Your task to perform on an android device: find which apps use the phone's location Image 0: 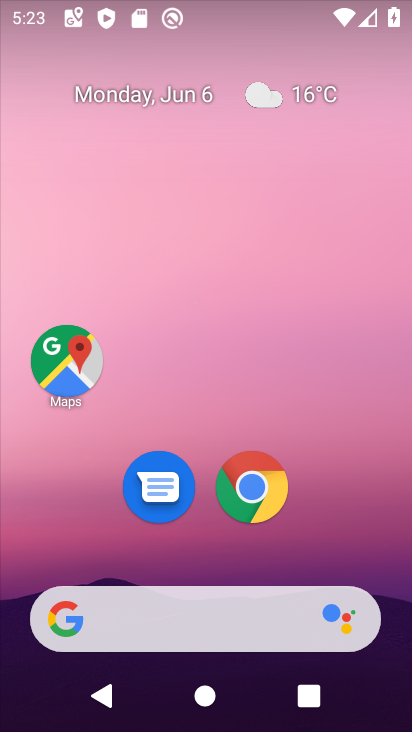
Step 0: drag from (331, 544) to (333, 28)
Your task to perform on an android device: find which apps use the phone's location Image 1: 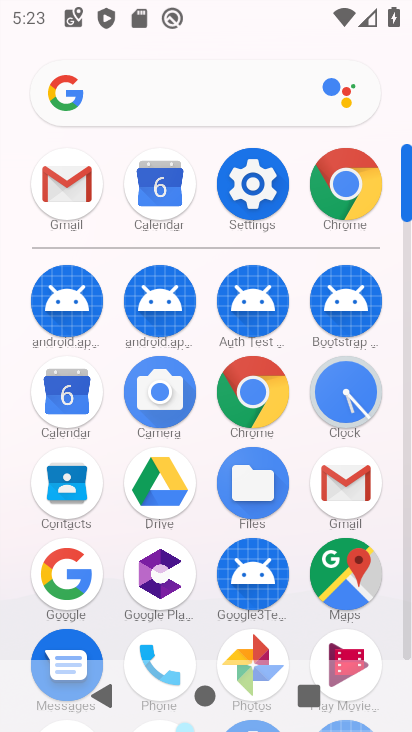
Step 1: click (261, 181)
Your task to perform on an android device: find which apps use the phone's location Image 2: 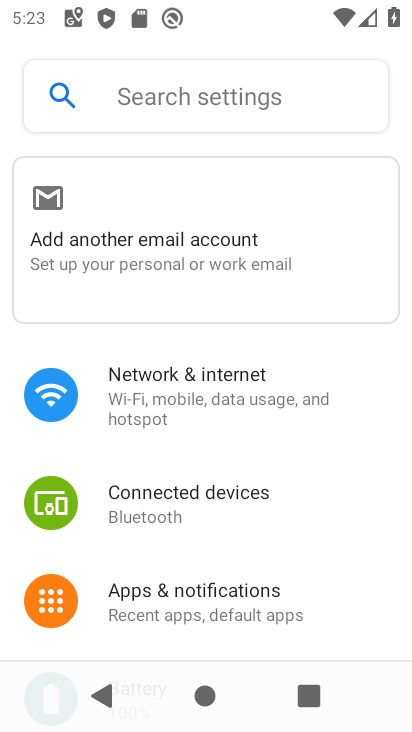
Step 2: drag from (254, 512) to (255, 0)
Your task to perform on an android device: find which apps use the phone's location Image 3: 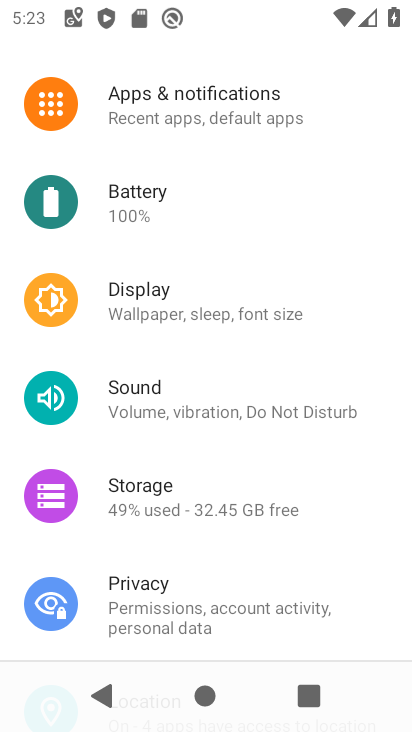
Step 3: drag from (249, 461) to (269, 47)
Your task to perform on an android device: find which apps use the phone's location Image 4: 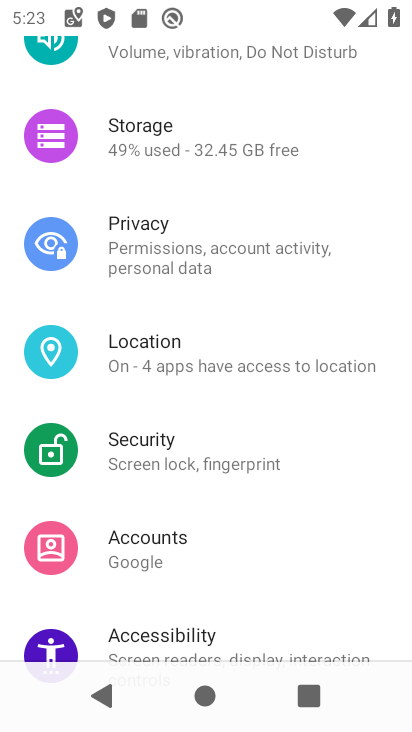
Step 4: click (227, 360)
Your task to perform on an android device: find which apps use the phone's location Image 5: 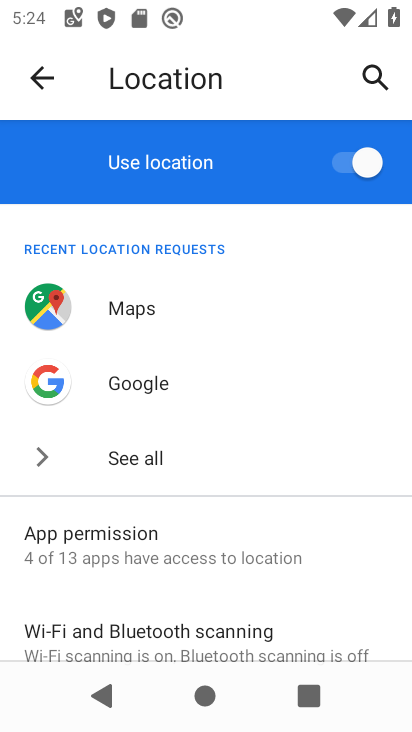
Step 5: drag from (245, 451) to (259, 210)
Your task to perform on an android device: find which apps use the phone's location Image 6: 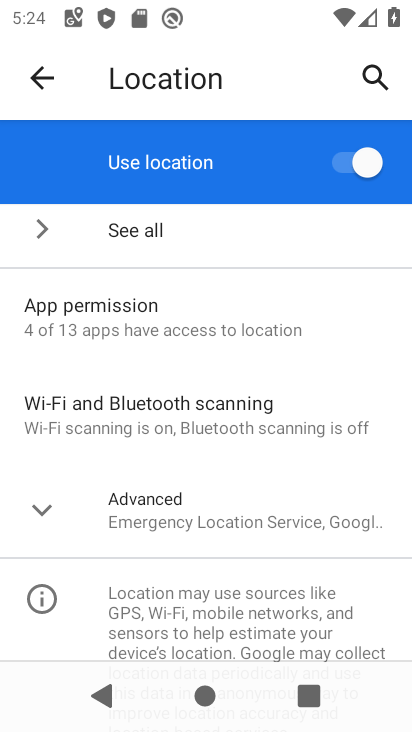
Step 6: click (202, 319)
Your task to perform on an android device: find which apps use the phone's location Image 7: 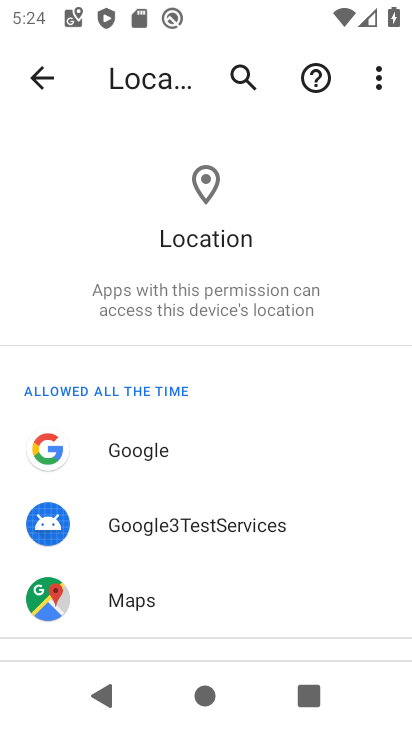
Step 7: task complete